Your task to perform on an android device: create a new album in the google photos Image 0: 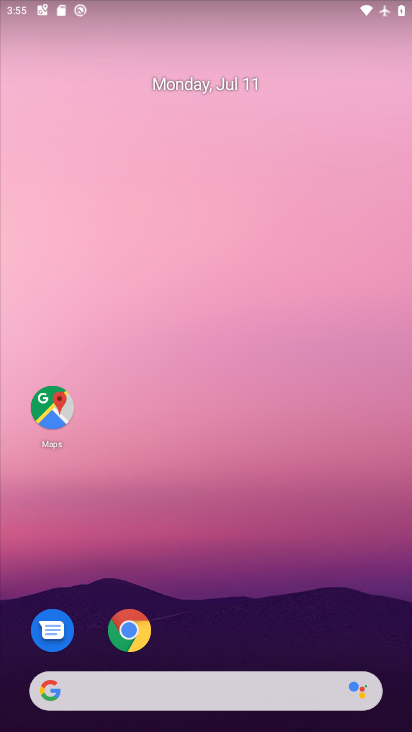
Step 0: drag from (309, 623) to (200, 13)
Your task to perform on an android device: create a new album in the google photos Image 1: 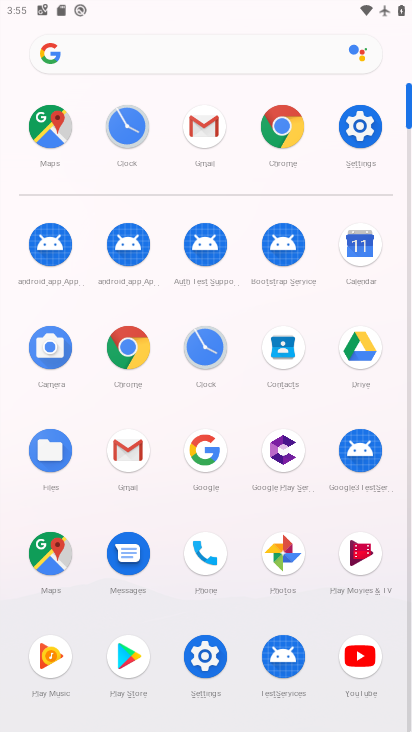
Step 1: click (284, 563)
Your task to perform on an android device: create a new album in the google photos Image 2: 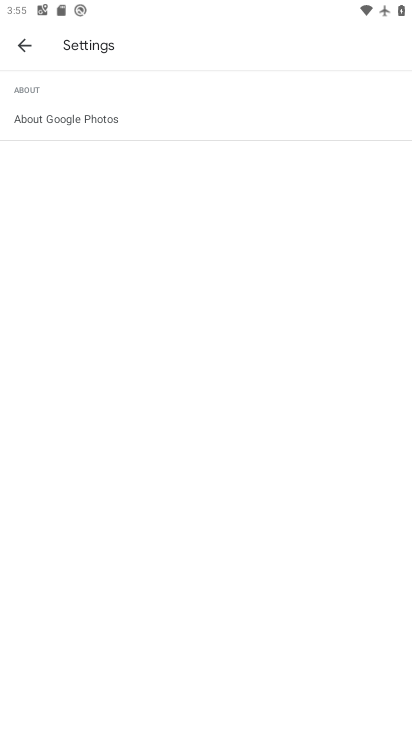
Step 2: click (14, 54)
Your task to perform on an android device: create a new album in the google photos Image 3: 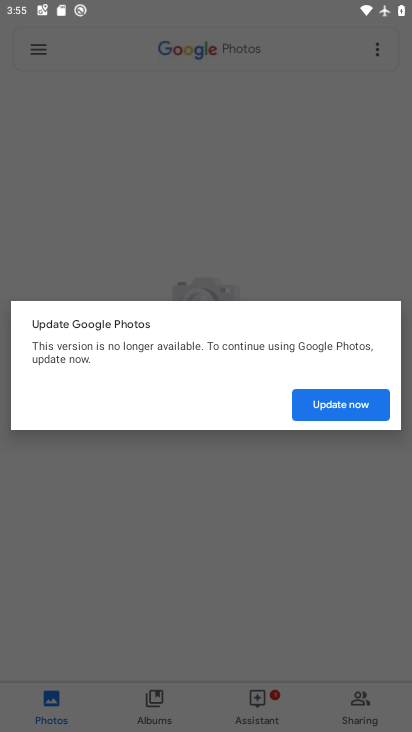
Step 3: click (322, 410)
Your task to perform on an android device: create a new album in the google photos Image 4: 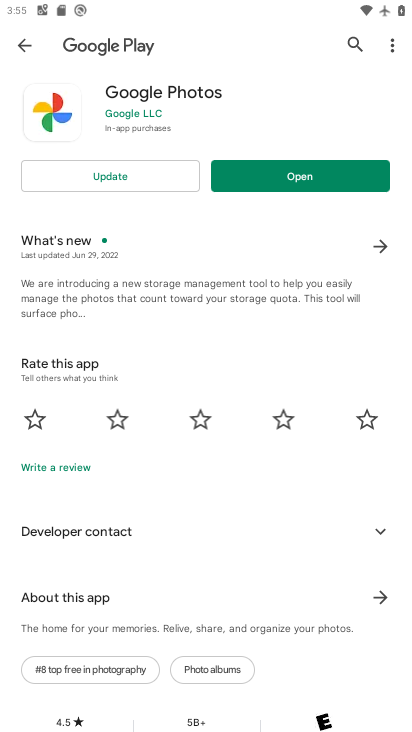
Step 4: click (235, 166)
Your task to perform on an android device: create a new album in the google photos Image 5: 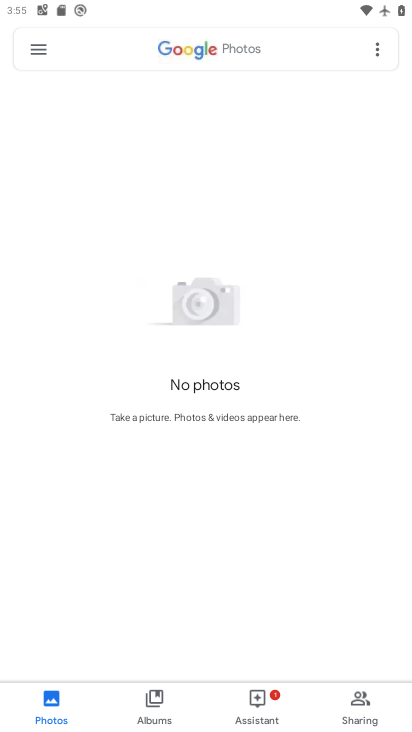
Step 5: click (129, 725)
Your task to perform on an android device: create a new album in the google photos Image 6: 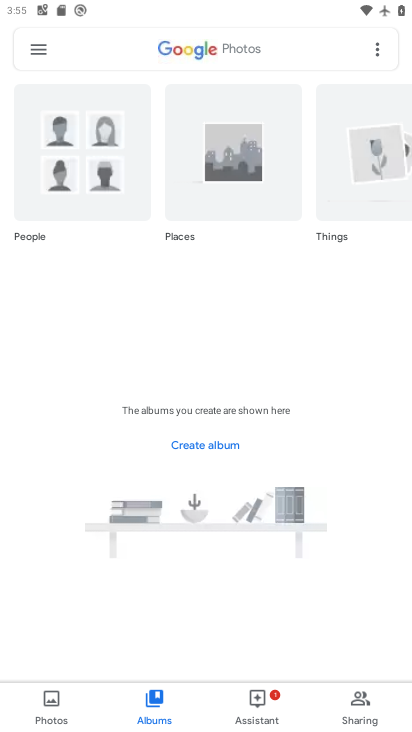
Step 6: click (115, 126)
Your task to perform on an android device: create a new album in the google photos Image 7: 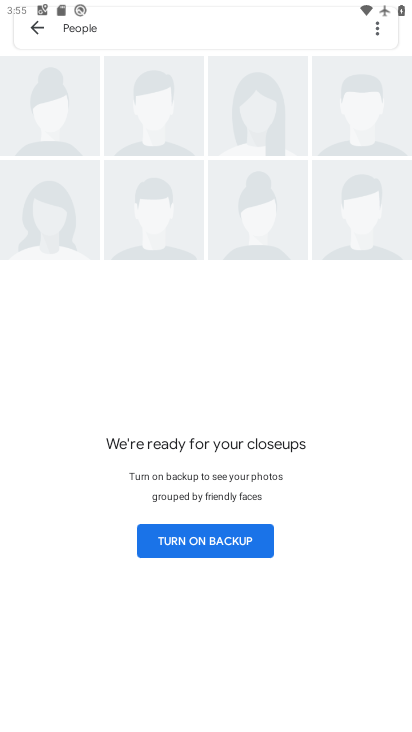
Step 7: task complete